Your task to perform on an android device: turn notification dots on Image 0: 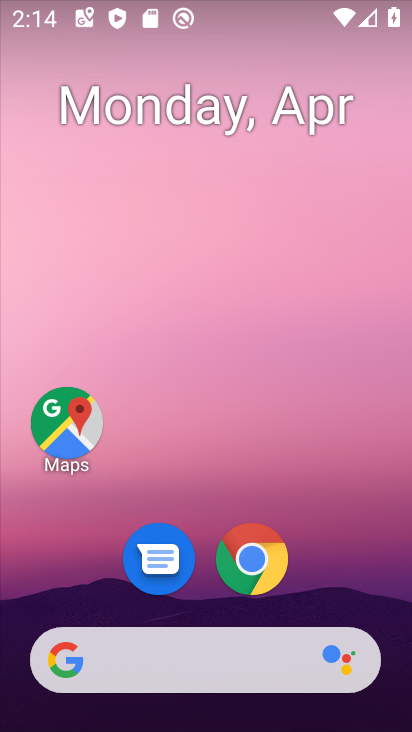
Step 0: drag from (293, 495) to (64, 69)
Your task to perform on an android device: turn notification dots on Image 1: 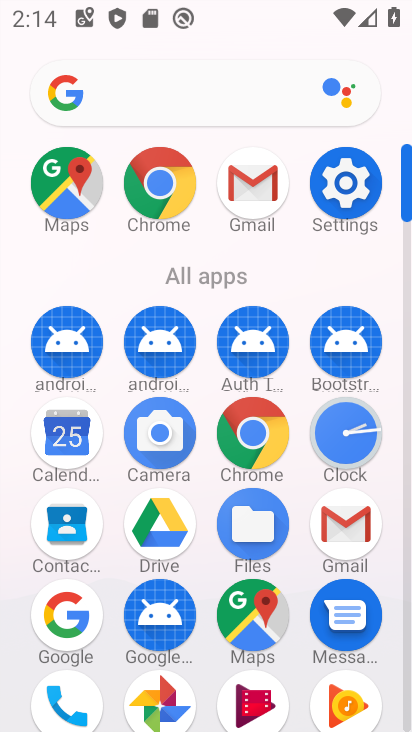
Step 1: click (365, 203)
Your task to perform on an android device: turn notification dots on Image 2: 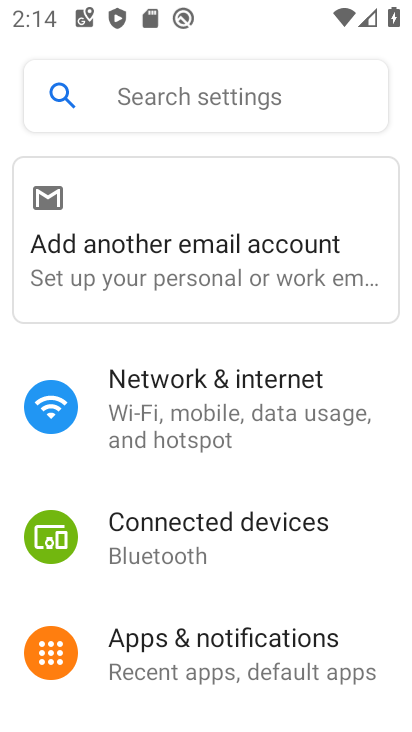
Step 2: drag from (188, 664) to (153, 403)
Your task to perform on an android device: turn notification dots on Image 3: 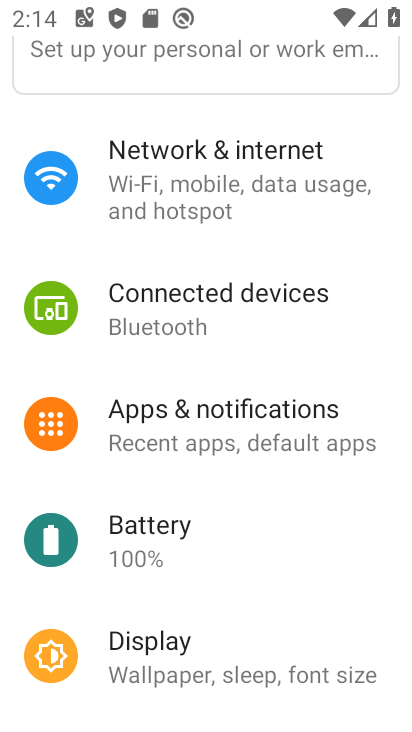
Step 3: click (130, 406)
Your task to perform on an android device: turn notification dots on Image 4: 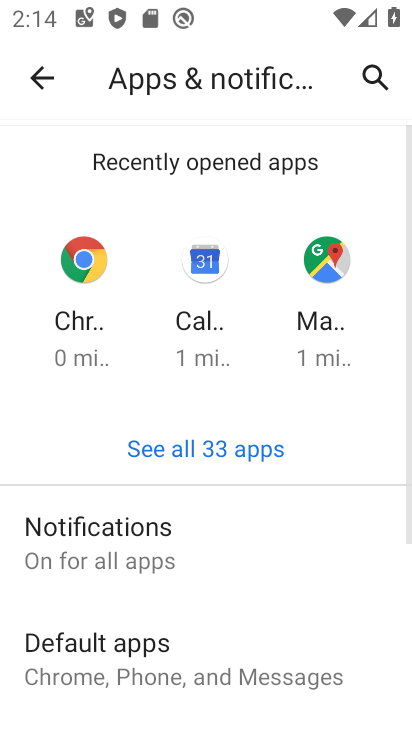
Step 4: click (128, 547)
Your task to perform on an android device: turn notification dots on Image 5: 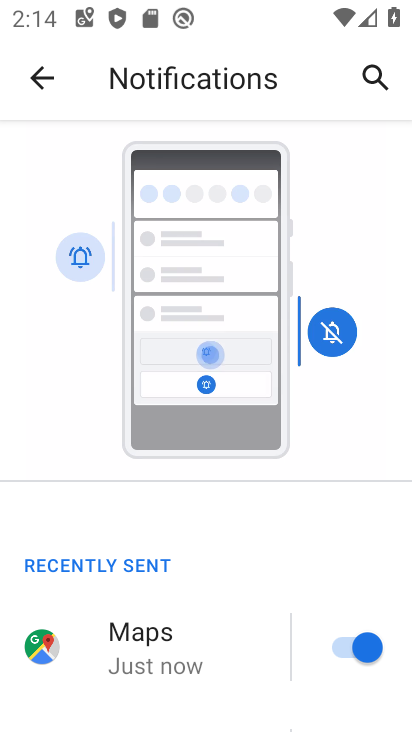
Step 5: drag from (179, 668) to (174, 180)
Your task to perform on an android device: turn notification dots on Image 6: 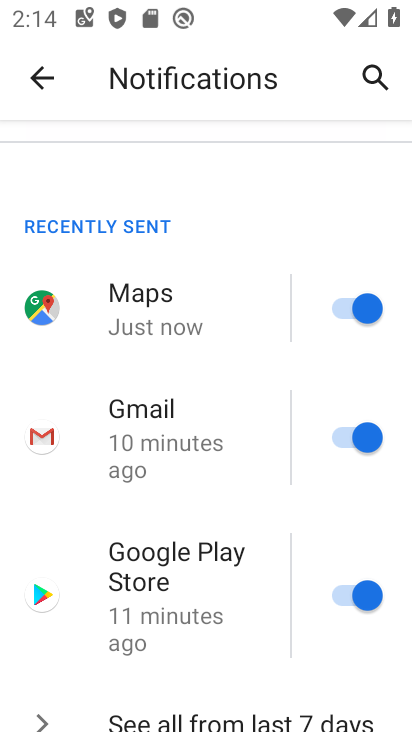
Step 6: drag from (166, 600) to (151, 313)
Your task to perform on an android device: turn notification dots on Image 7: 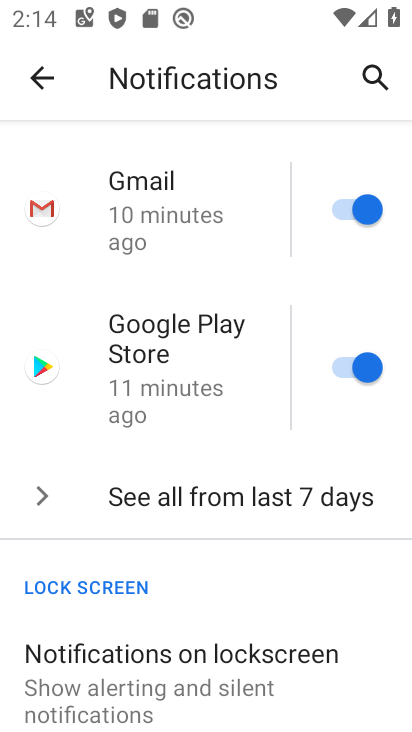
Step 7: drag from (125, 675) to (118, 219)
Your task to perform on an android device: turn notification dots on Image 8: 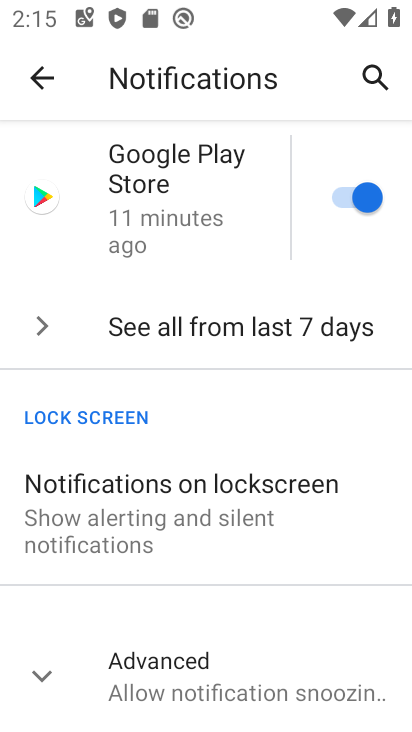
Step 8: click (108, 689)
Your task to perform on an android device: turn notification dots on Image 9: 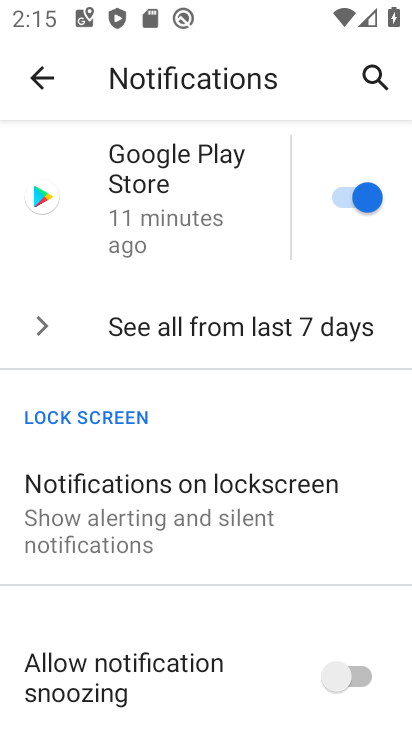
Step 9: task complete